Your task to perform on an android device: visit the assistant section in the google photos Image 0: 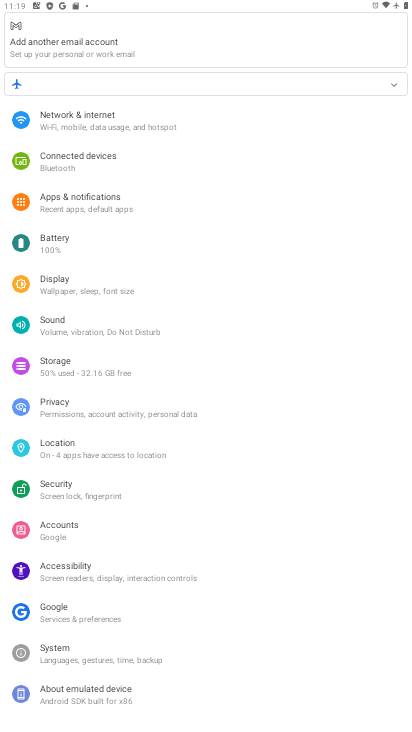
Step 0: press home button
Your task to perform on an android device: visit the assistant section in the google photos Image 1: 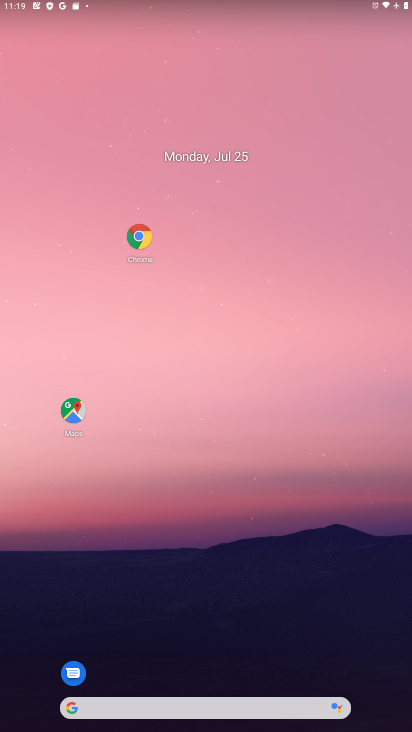
Step 1: drag from (221, 645) to (238, 29)
Your task to perform on an android device: visit the assistant section in the google photos Image 2: 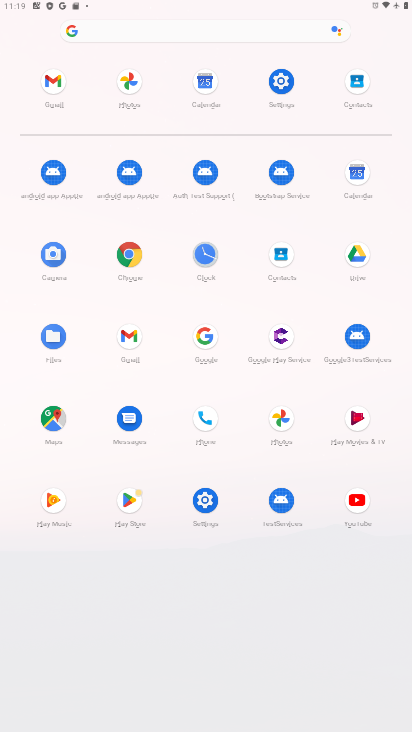
Step 2: click (130, 104)
Your task to perform on an android device: visit the assistant section in the google photos Image 3: 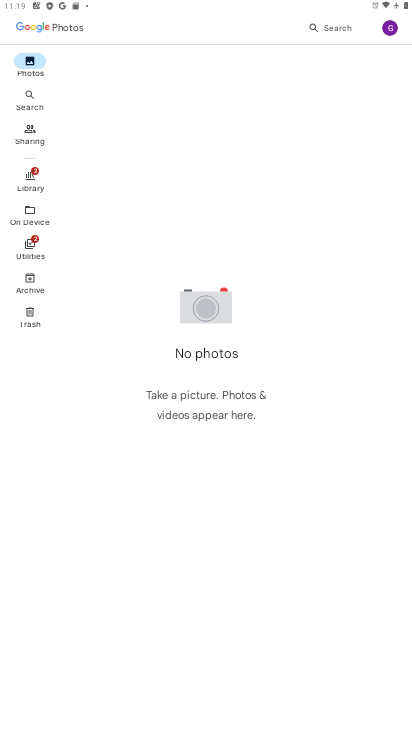
Step 3: task complete